Your task to perform on an android device: open wifi settings Image 0: 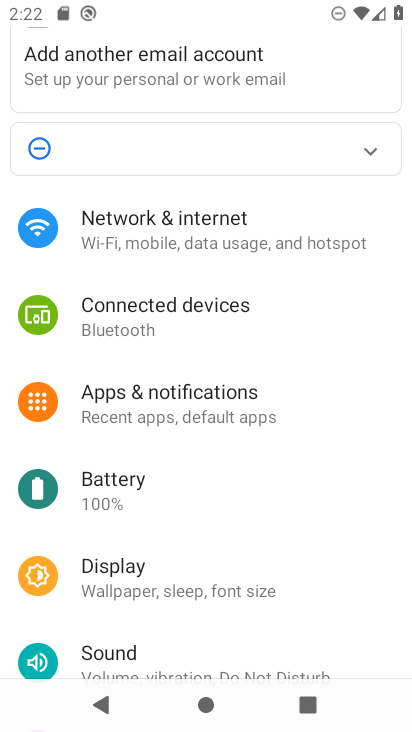
Step 0: click (233, 237)
Your task to perform on an android device: open wifi settings Image 1: 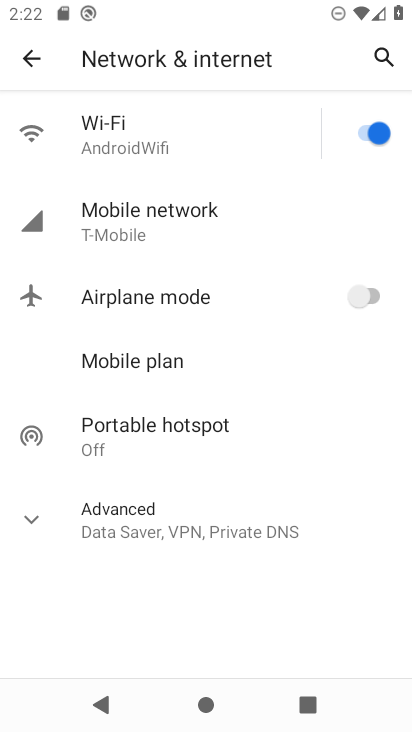
Step 1: click (198, 146)
Your task to perform on an android device: open wifi settings Image 2: 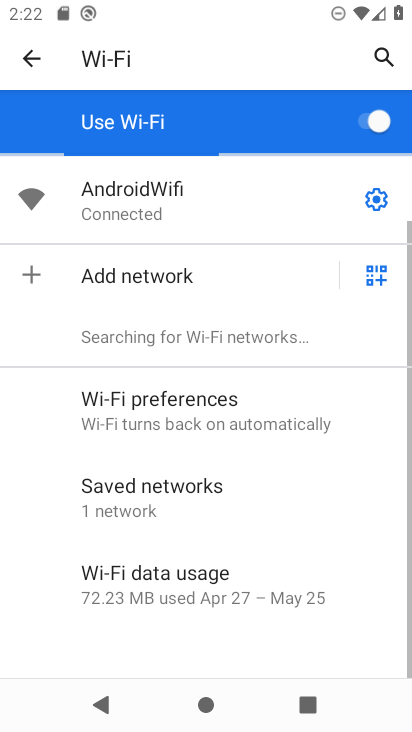
Step 2: task complete